Your task to perform on an android device: turn smart compose on in the gmail app Image 0: 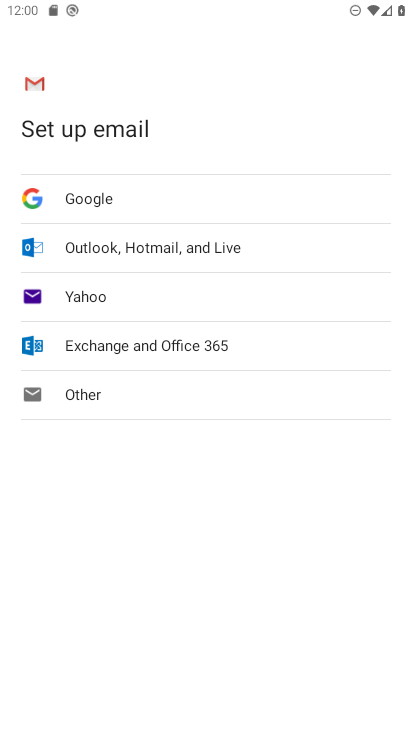
Step 0: press back button
Your task to perform on an android device: turn smart compose on in the gmail app Image 1: 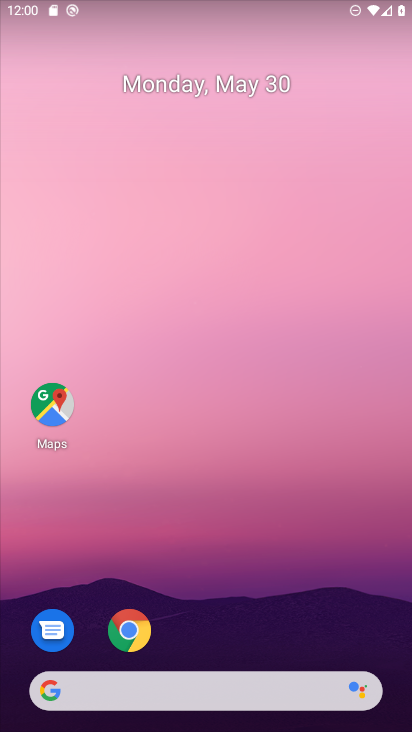
Step 1: drag from (225, 659) to (156, 228)
Your task to perform on an android device: turn smart compose on in the gmail app Image 2: 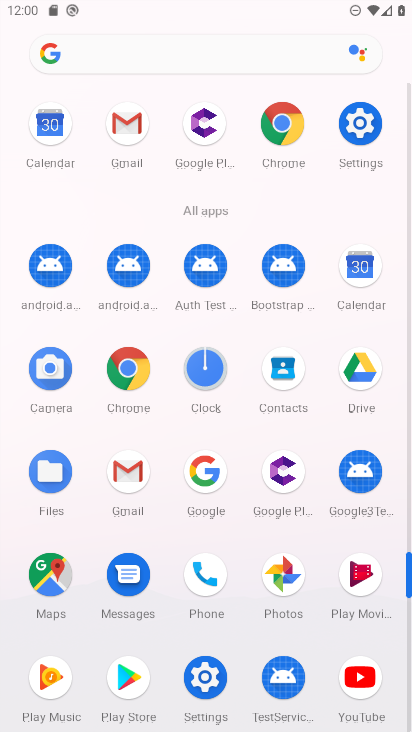
Step 2: click (121, 469)
Your task to perform on an android device: turn smart compose on in the gmail app Image 3: 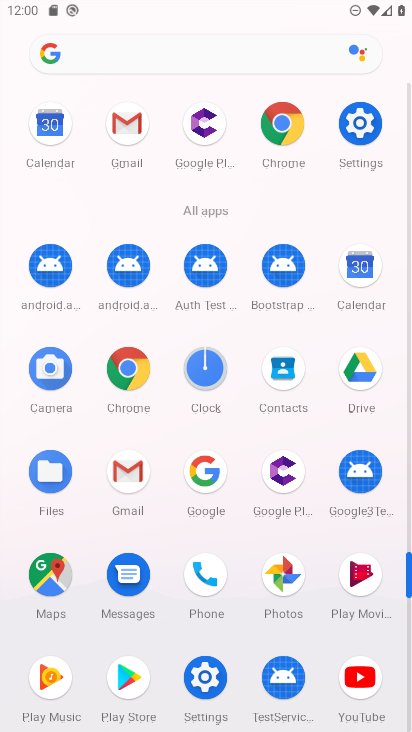
Step 3: click (120, 468)
Your task to perform on an android device: turn smart compose on in the gmail app Image 4: 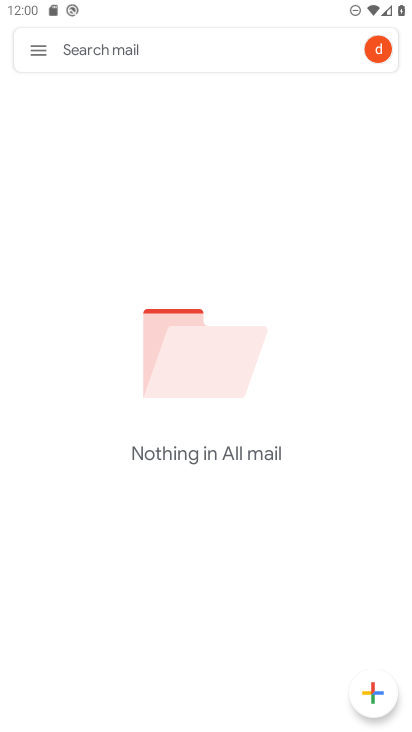
Step 4: click (120, 468)
Your task to perform on an android device: turn smart compose on in the gmail app Image 5: 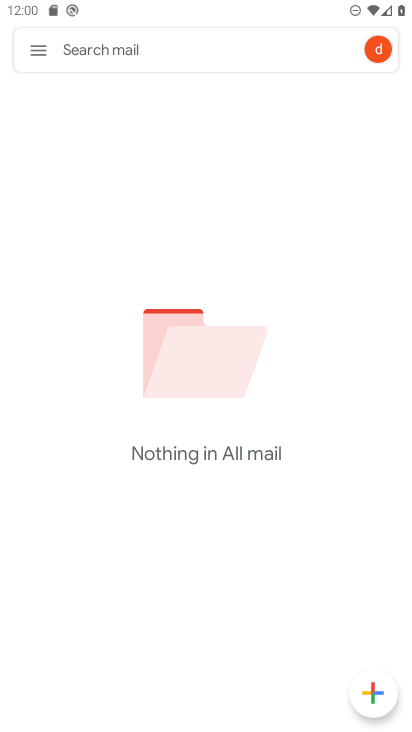
Step 5: click (32, 48)
Your task to perform on an android device: turn smart compose on in the gmail app Image 6: 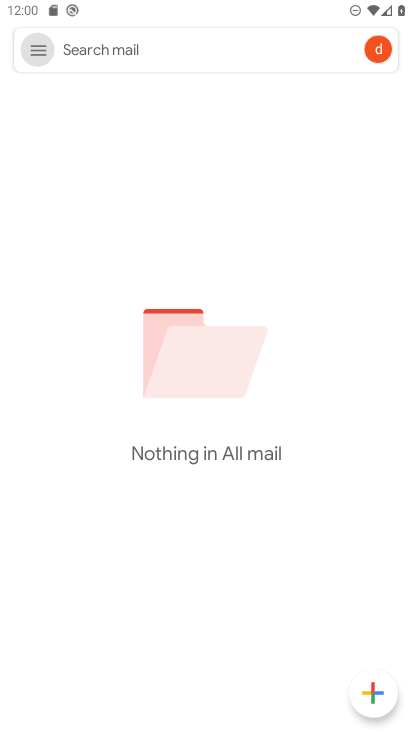
Step 6: click (32, 48)
Your task to perform on an android device: turn smart compose on in the gmail app Image 7: 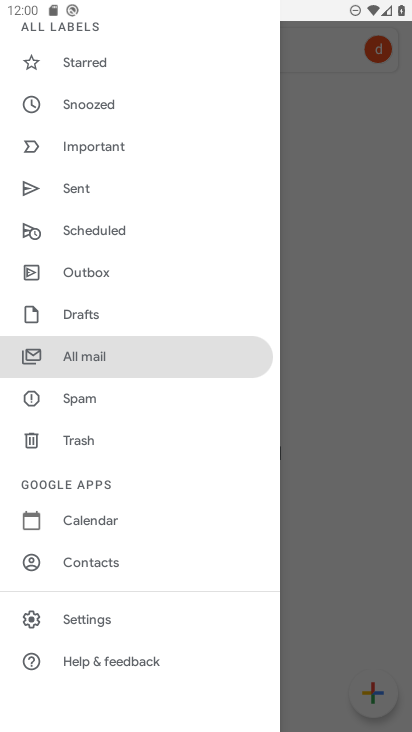
Step 7: click (80, 612)
Your task to perform on an android device: turn smart compose on in the gmail app Image 8: 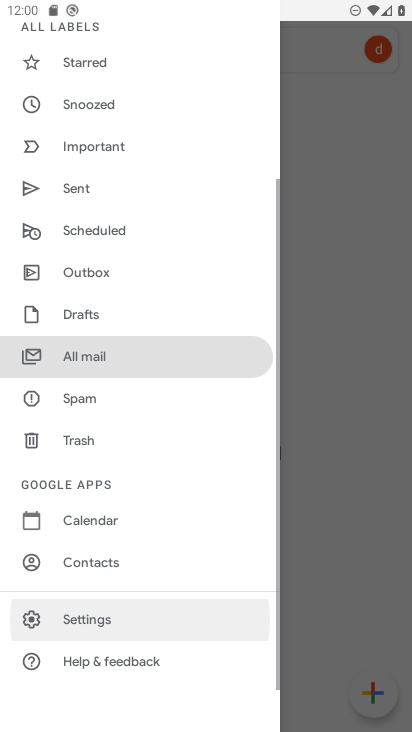
Step 8: click (79, 615)
Your task to perform on an android device: turn smart compose on in the gmail app Image 9: 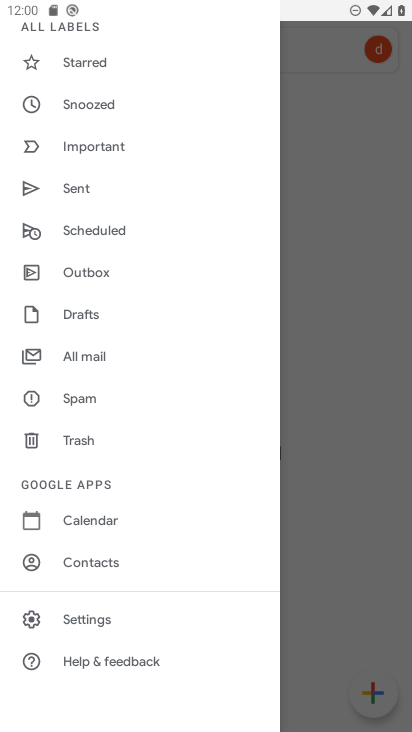
Step 9: click (77, 612)
Your task to perform on an android device: turn smart compose on in the gmail app Image 10: 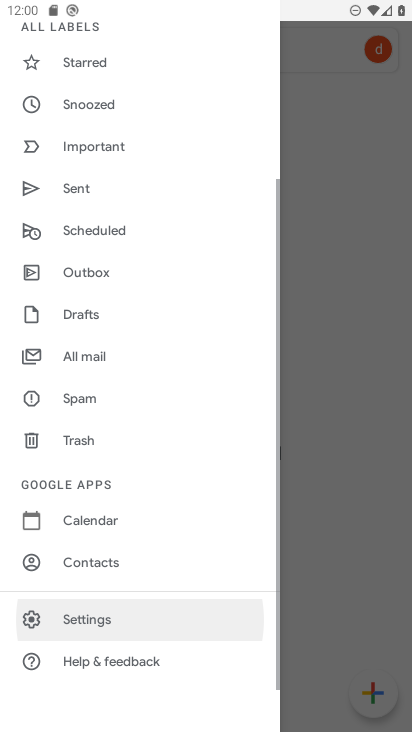
Step 10: click (77, 612)
Your task to perform on an android device: turn smart compose on in the gmail app Image 11: 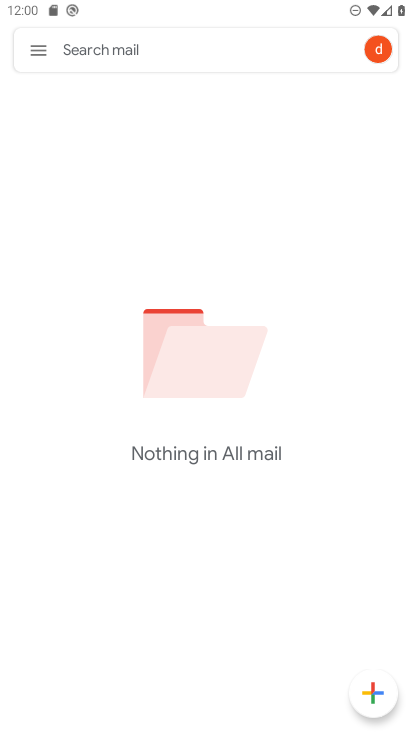
Step 11: click (77, 612)
Your task to perform on an android device: turn smart compose on in the gmail app Image 12: 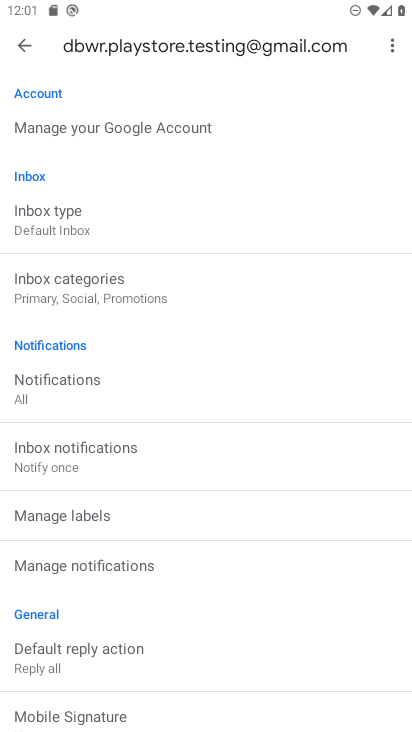
Step 12: click (48, 141)
Your task to perform on an android device: turn smart compose on in the gmail app Image 13: 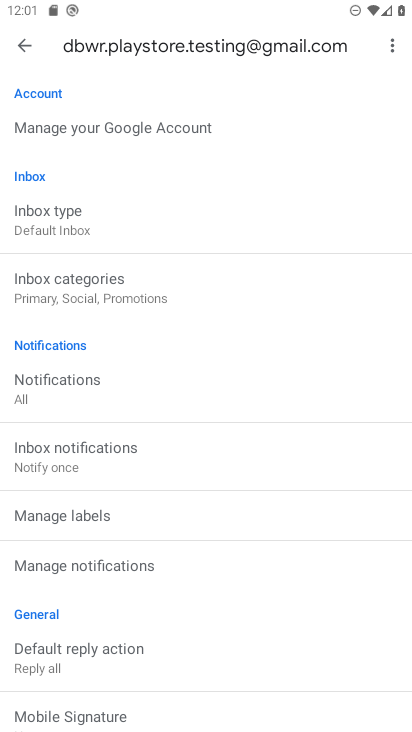
Step 13: task complete